Your task to perform on an android device: open the mobile data screen to see how much data has been used Image 0: 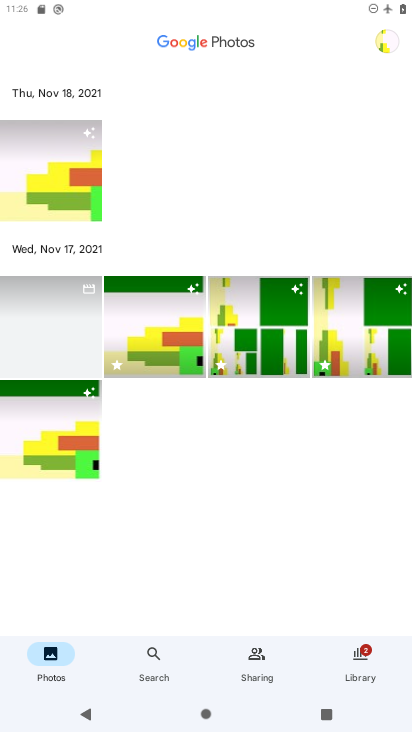
Step 0: press home button
Your task to perform on an android device: open the mobile data screen to see how much data has been used Image 1: 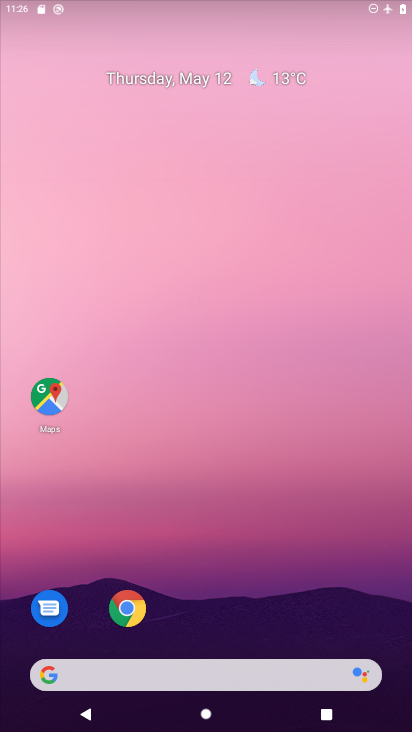
Step 1: drag from (231, 589) to (227, 164)
Your task to perform on an android device: open the mobile data screen to see how much data has been used Image 2: 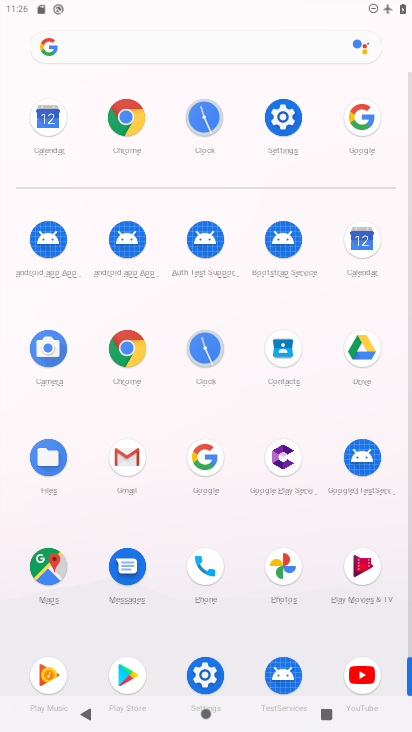
Step 2: click (289, 119)
Your task to perform on an android device: open the mobile data screen to see how much data has been used Image 3: 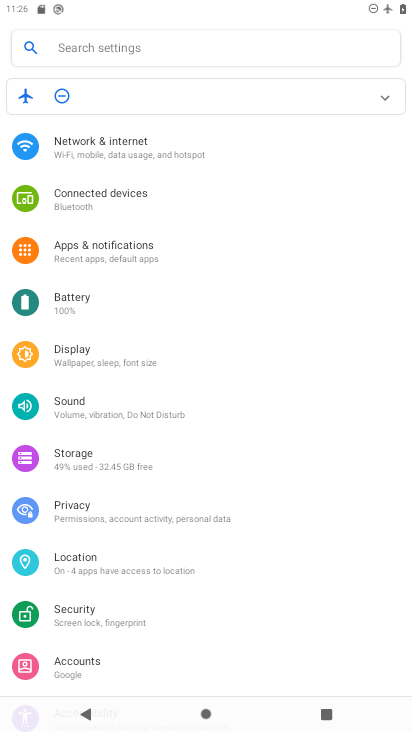
Step 3: click (119, 155)
Your task to perform on an android device: open the mobile data screen to see how much data has been used Image 4: 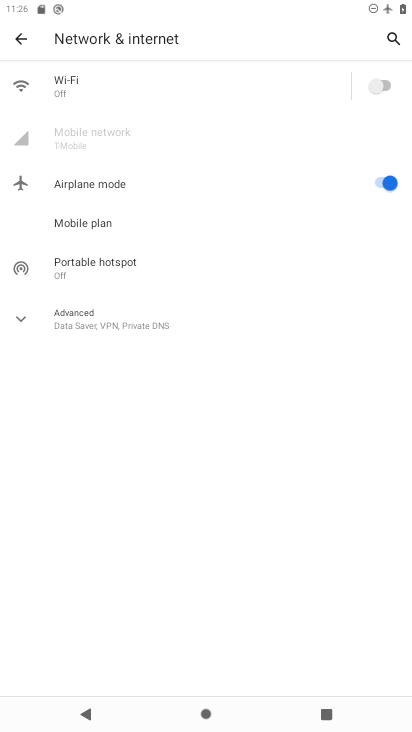
Step 4: task complete